Your task to perform on an android device: turn off improve location accuracy Image 0: 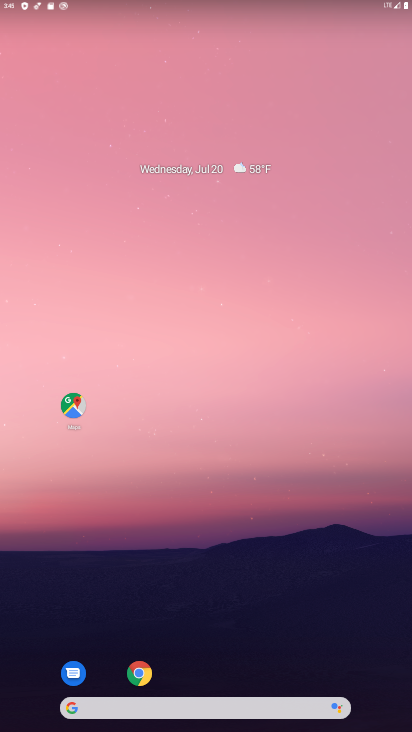
Step 0: click (137, 193)
Your task to perform on an android device: turn off improve location accuracy Image 1: 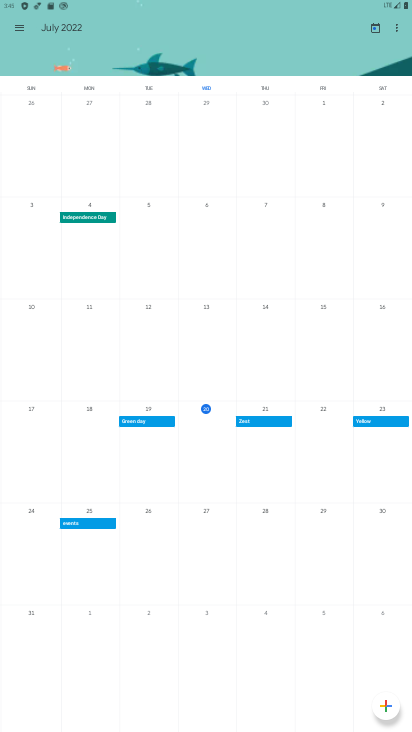
Step 1: press home button
Your task to perform on an android device: turn off improve location accuracy Image 2: 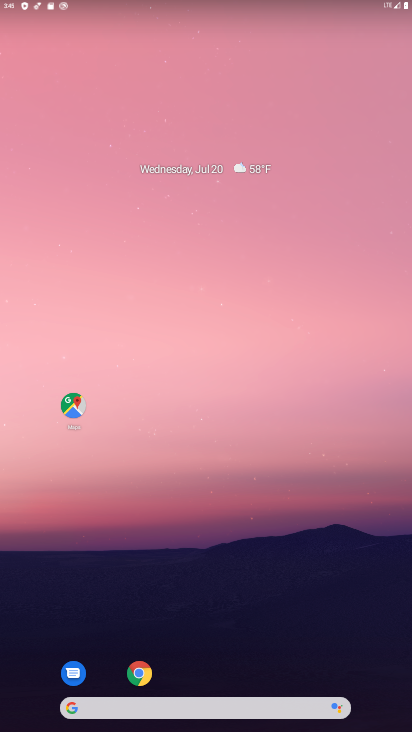
Step 2: drag from (200, 599) to (201, 320)
Your task to perform on an android device: turn off improve location accuracy Image 3: 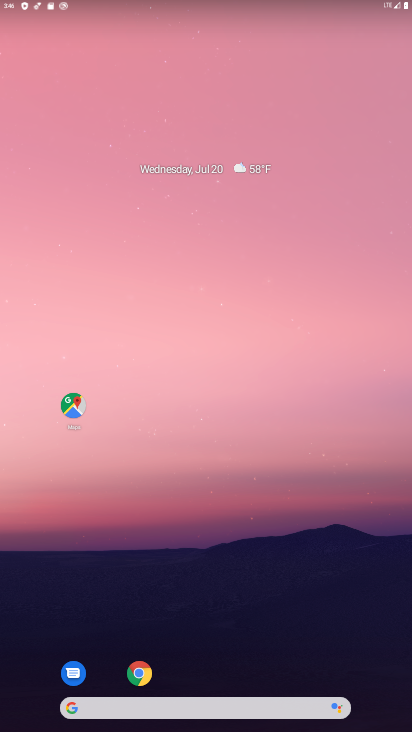
Step 3: drag from (198, 612) to (192, 293)
Your task to perform on an android device: turn off improve location accuracy Image 4: 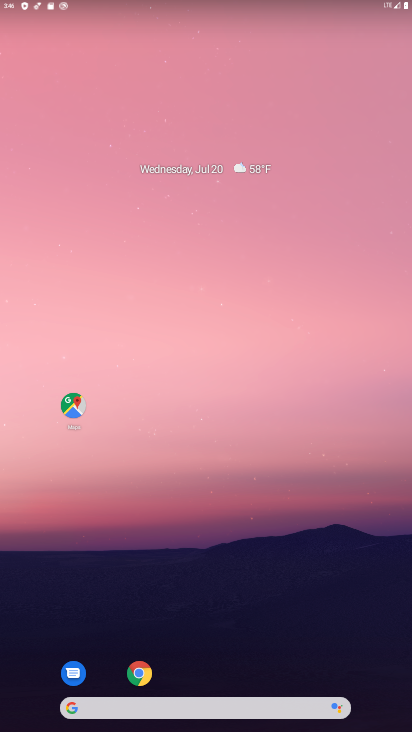
Step 4: drag from (185, 339) to (218, 221)
Your task to perform on an android device: turn off improve location accuracy Image 5: 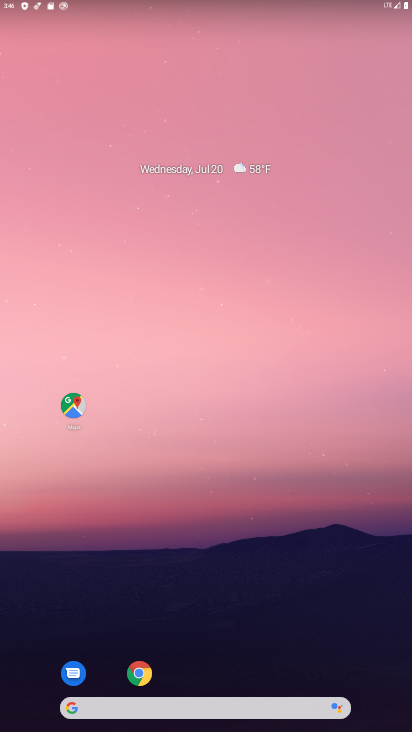
Step 5: drag from (266, 627) to (233, 239)
Your task to perform on an android device: turn off improve location accuracy Image 6: 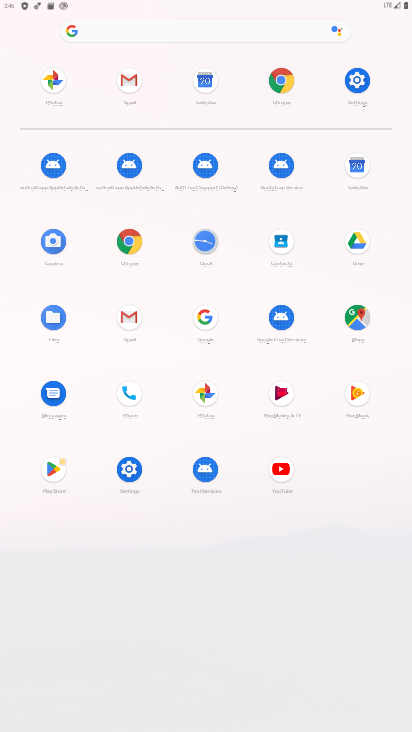
Step 6: click (118, 481)
Your task to perform on an android device: turn off improve location accuracy Image 7: 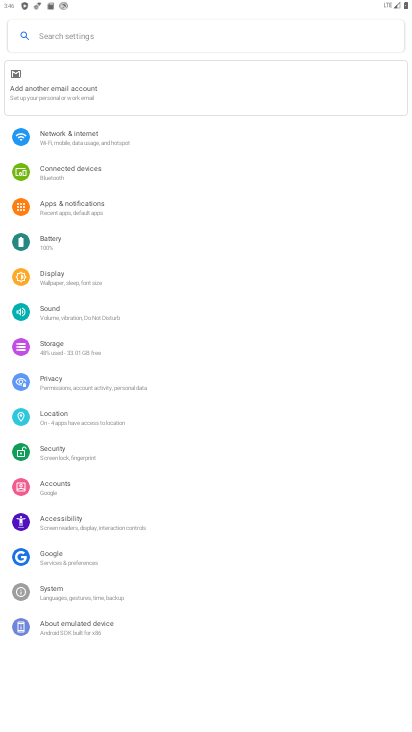
Step 7: click (51, 416)
Your task to perform on an android device: turn off improve location accuracy Image 8: 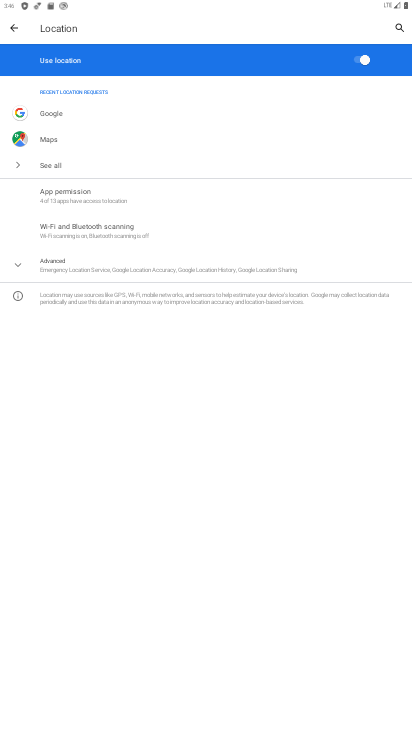
Step 8: task complete